Your task to perform on an android device: Show me the alarms in the clock app Image 0: 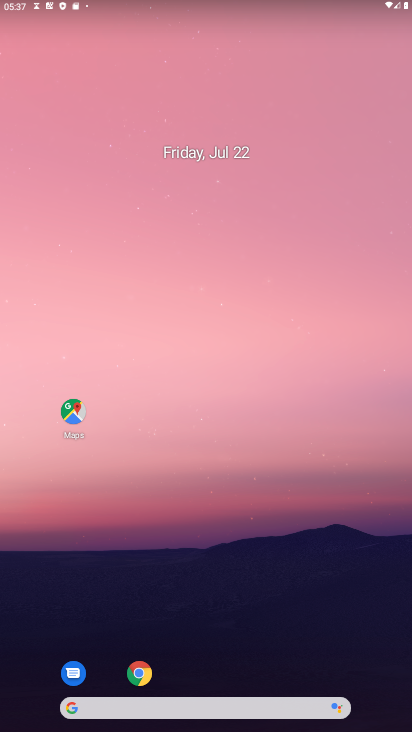
Step 0: press home button
Your task to perform on an android device: Show me the alarms in the clock app Image 1: 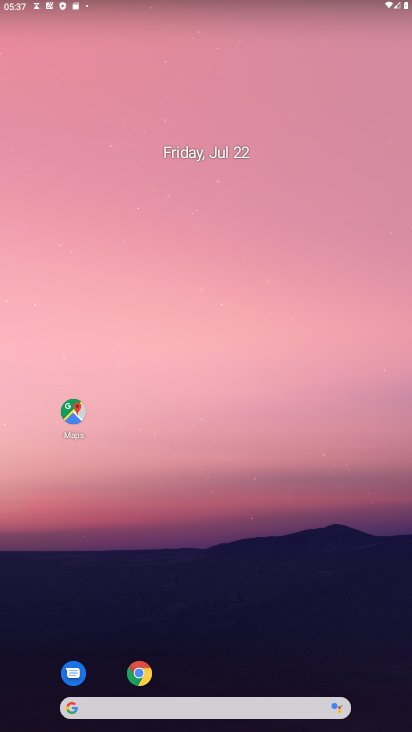
Step 1: drag from (280, 666) to (387, 153)
Your task to perform on an android device: Show me the alarms in the clock app Image 2: 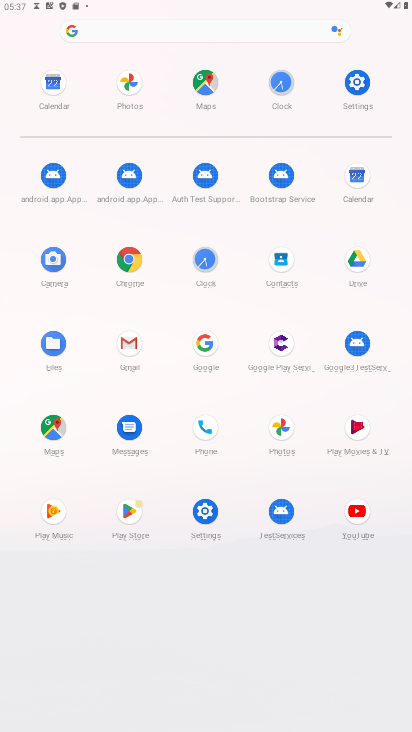
Step 2: click (201, 257)
Your task to perform on an android device: Show me the alarms in the clock app Image 3: 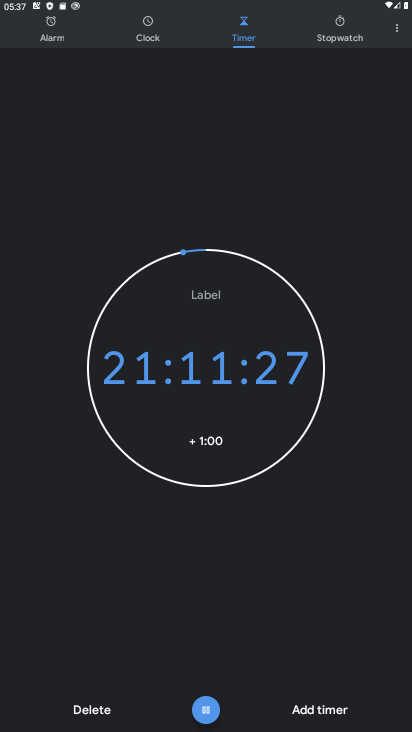
Step 3: click (47, 31)
Your task to perform on an android device: Show me the alarms in the clock app Image 4: 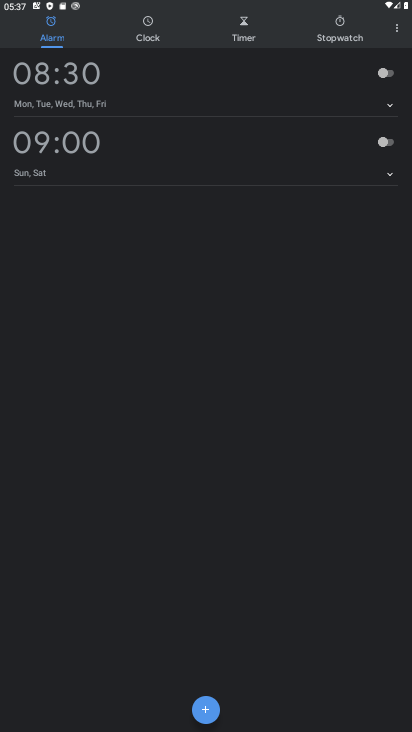
Step 4: task complete